Your task to perform on an android device: turn off airplane mode Image 0: 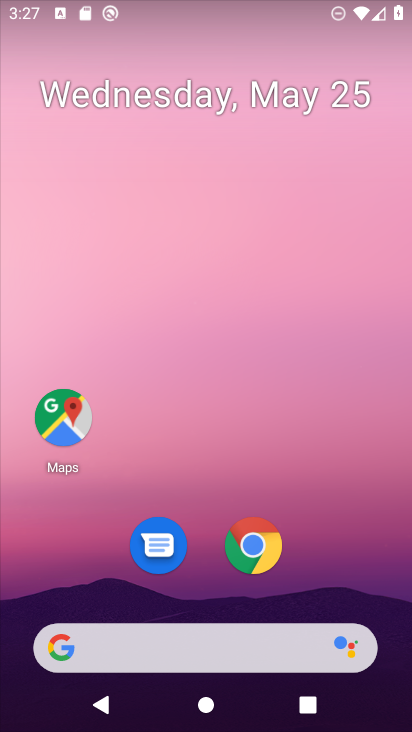
Step 0: drag from (354, 604) to (396, 4)
Your task to perform on an android device: turn off airplane mode Image 1: 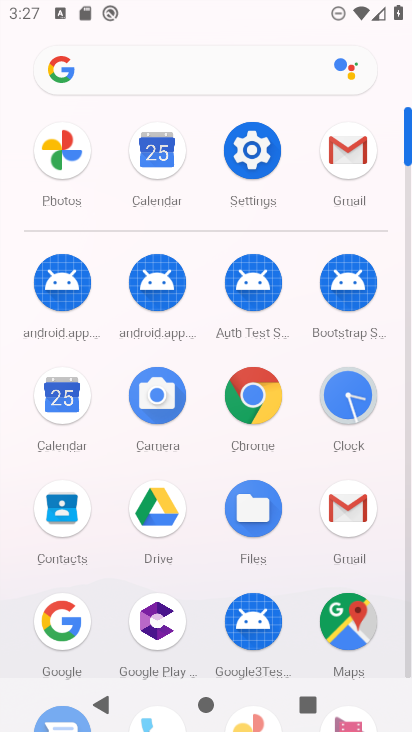
Step 1: click (254, 154)
Your task to perform on an android device: turn off airplane mode Image 2: 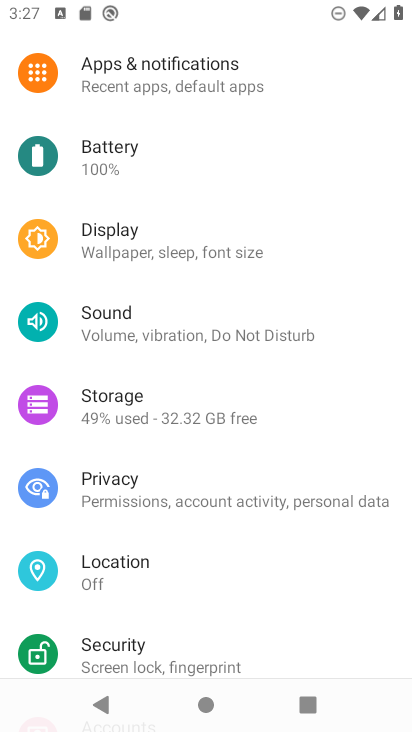
Step 2: drag from (254, 154) to (250, 700)
Your task to perform on an android device: turn off airplane mode Image 3: 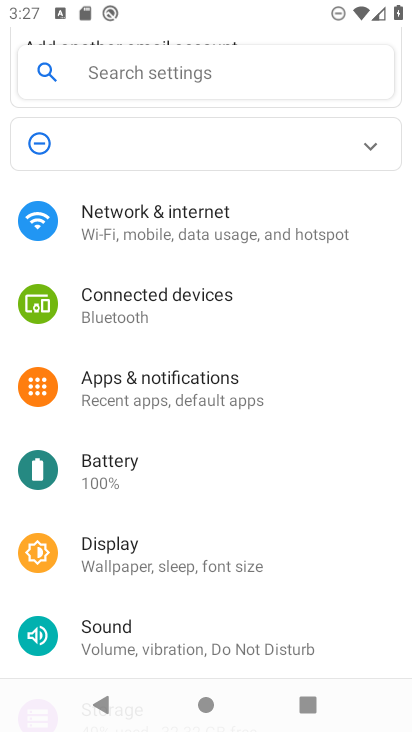
Step 3: click (231, 215)
Your task to perform on an android device: turn off airplane mode Image 4: 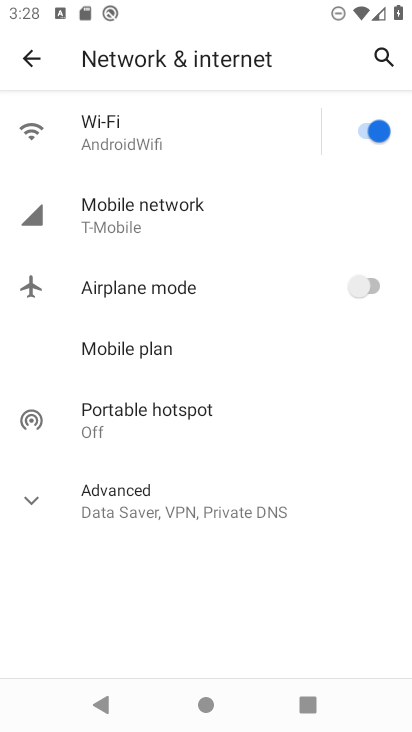
Step 4: click (231, 215)
Your task to perform on an android device: turn off airplane mode Image 5: 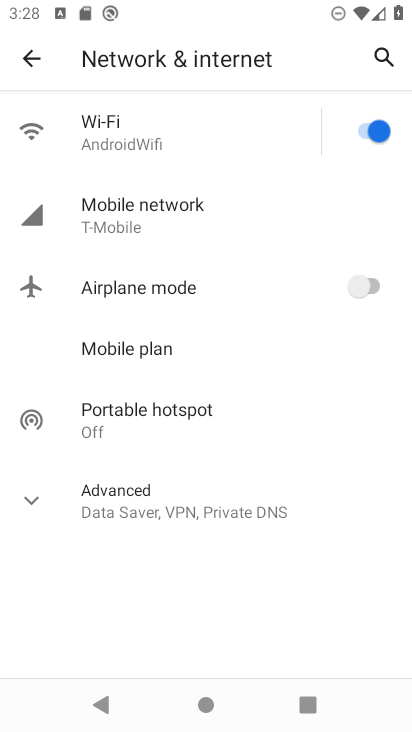
Step 5: task complete